Your task to perform on an android device: Open CNN.com Image 0: 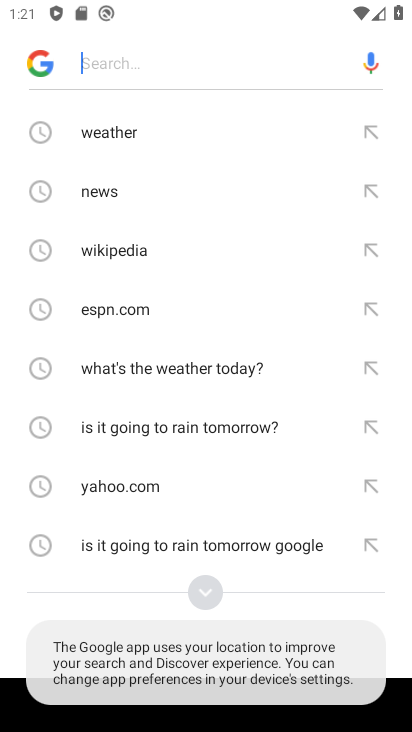
Step 0: press home button
Your task to perform on an android device: Open CNN.com Image 1: 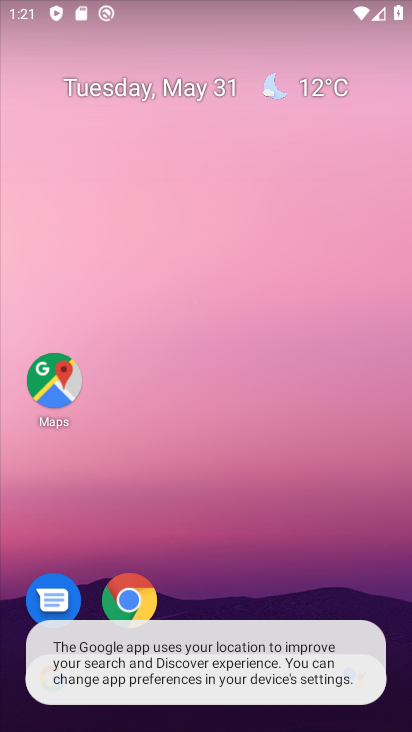
Step 1: drag from (280, 504) to (215, 111)
Your task to perform on an android device: Open CNN.com Image 2: 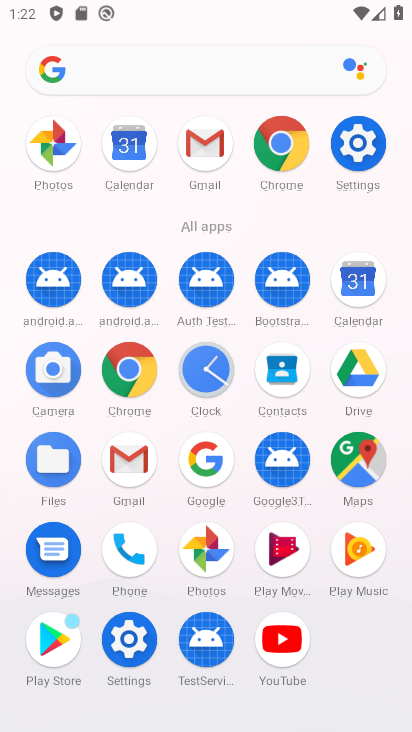
Step 2: click (285, 149)
Your task to perform on an android device: Open CNN.com Image 3: 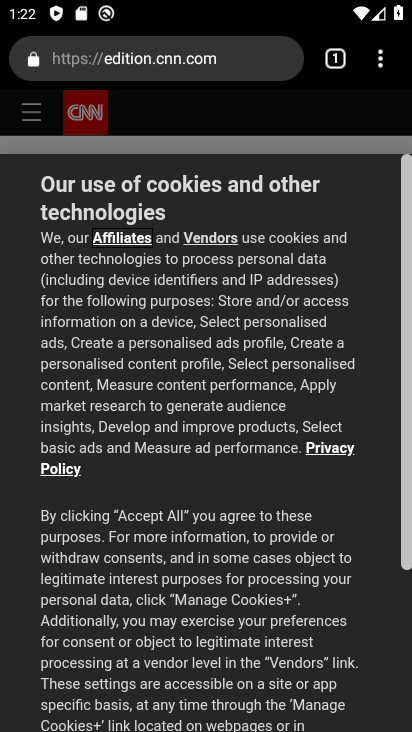
Step 3: task complete